Your task to perform on an android device: toggle translation in the chrome app Image 0: 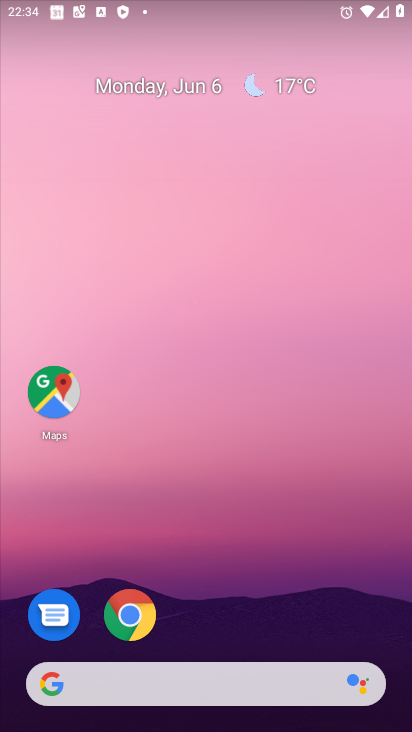
Step 0: click (125, 625)
Your task to perform on an android device: toggle translation in the chrome app Image 1: 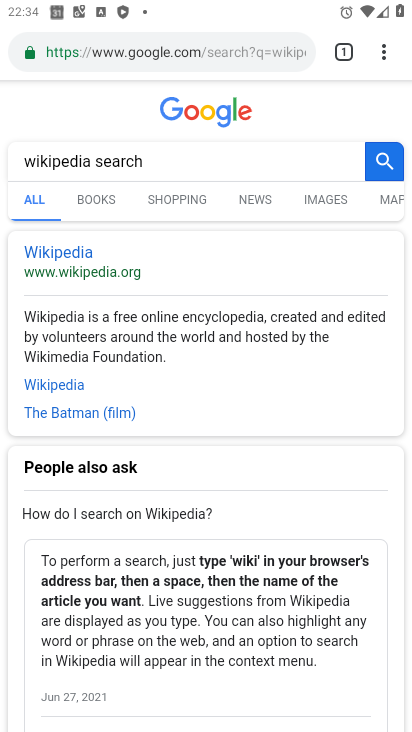
Step 1: click (385, 53)
Your task to perform on an android device: toggle translation in the chrome app Image 2: 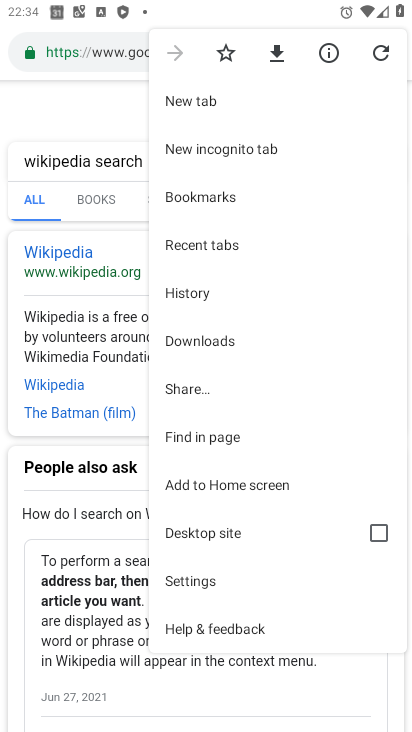
Step 2: click (174, 589)
Your task to perform on an android device: toggle translation in the chrome app Image 3: 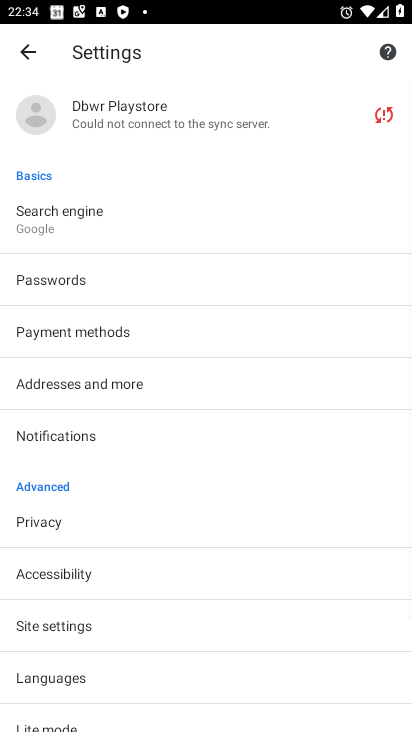
Step 3: click (88, 682)
Your task to perform on an android device: toggle translation in the chrome app Image 4: 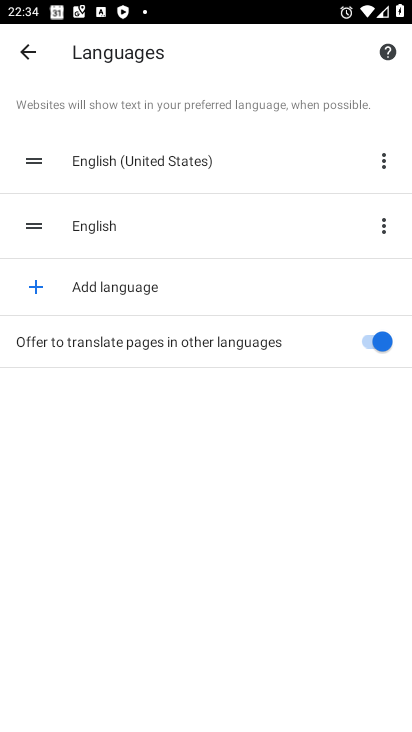
Step 4: click (358, 340)
Your task to perform on an android device: toggle translation in the chrome app Image 5: 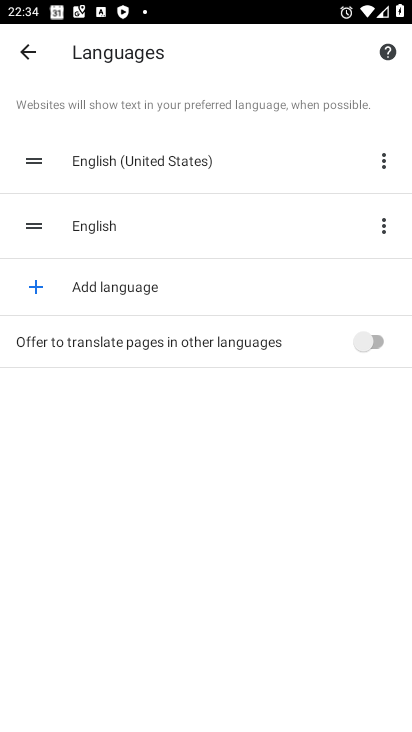
Step 5: task complete